Your task to perform on an android device: Toggle the flashlight Image 0: 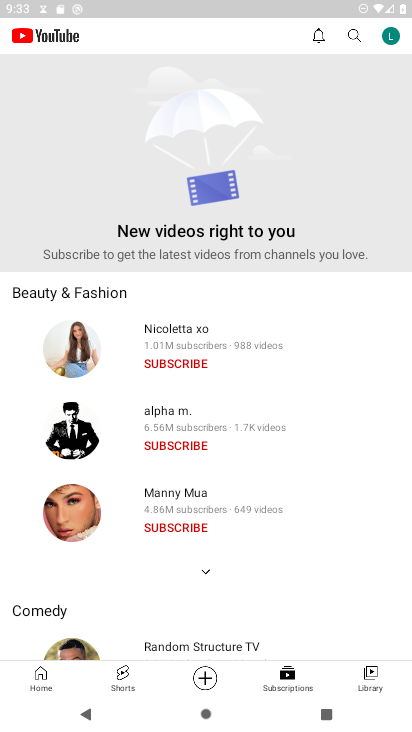
Step 0: press home button
Your task to perform on an android device: Toggle the flashlight Image 1: 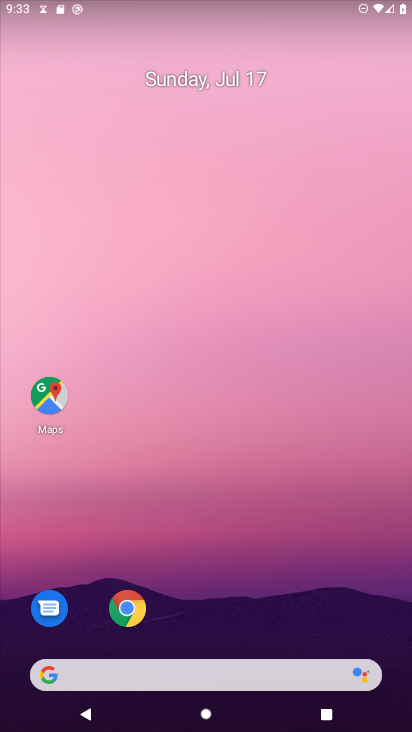
Step 1: drag from (185, 672) to (148, 190)
Your task to perform on an android device: Toggle the flashlight Image 2: 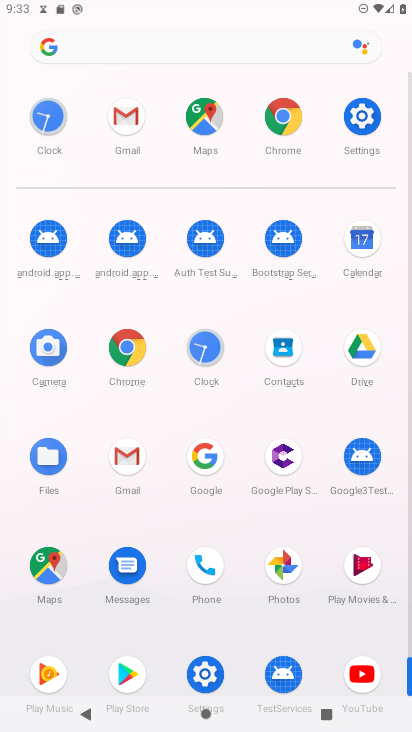
Step 2: click (362, 116)
Your task to perform on an android device: Toggle the flashlight Image 3: 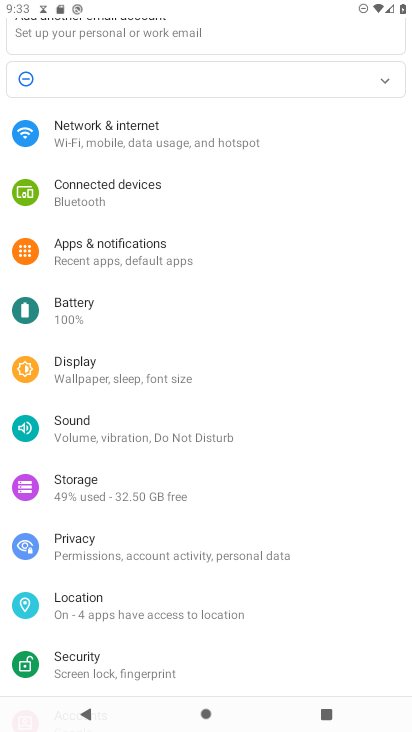
Step 3: click (133, 382)
Your task to perform on an android device: Toggle the flashlight Image 4: 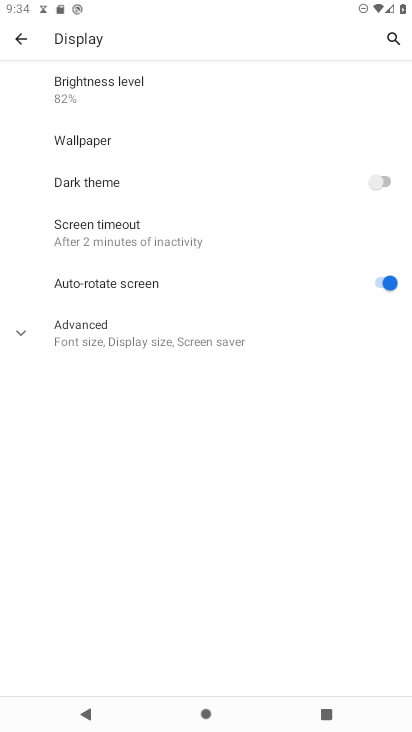
Step 4: click (124, 345)
Your task to perform on an android device: Toggle the flashlight Image 5: 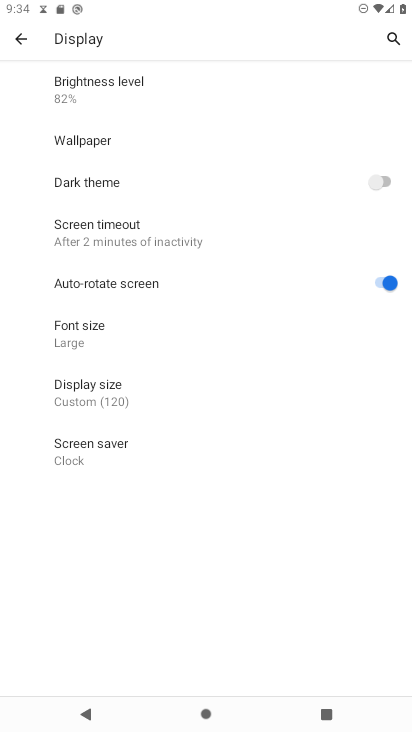
Step 5: task complete